Your task to perform on an android device: uninstall "DuckDuckGo Privacy Browser" Image 0: 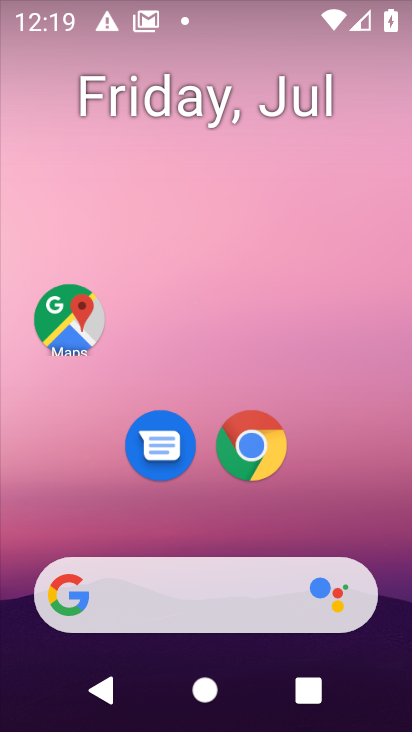
Step 0: drag from (204, 550) to (118, 18)
Your task to perform on an android device: uninstall "DuckDuckGo Privacy Browser" Image 1: 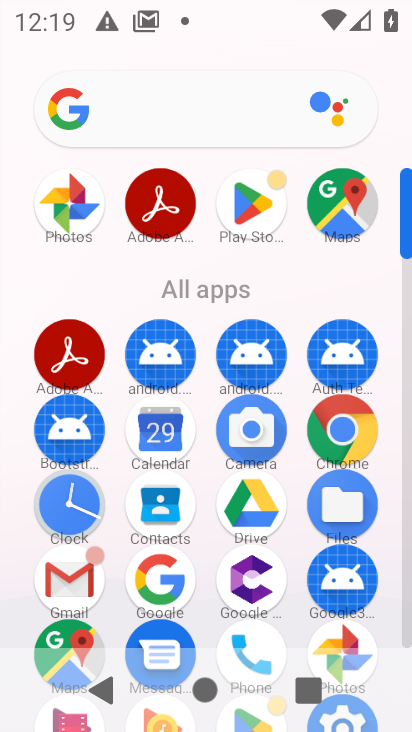
Step 1: click (267, 219)
Your task to perform on an android device: uninstall "DuckDuckGo Privacy Browser" Image 2: 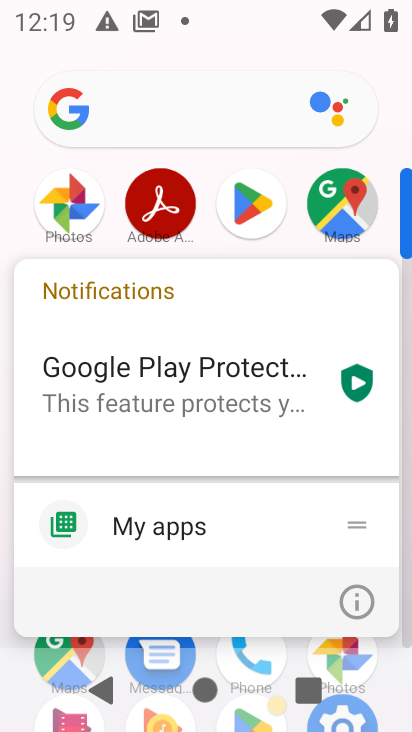
Step 2: click (240, 212)
Your task to perform on an android device: uninstall "DuckDuckGo Privacy Browser" Image 3: 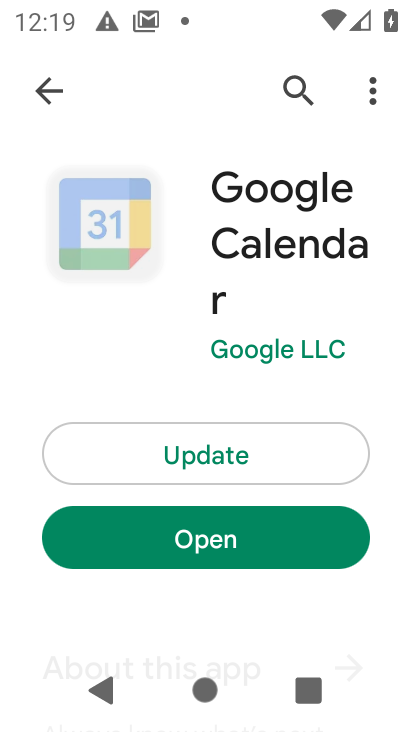
Step 3: click (249, 219)
Your task to perform on an android device: uninstall "DuckDuckGo Privacy Browser" Image 4: 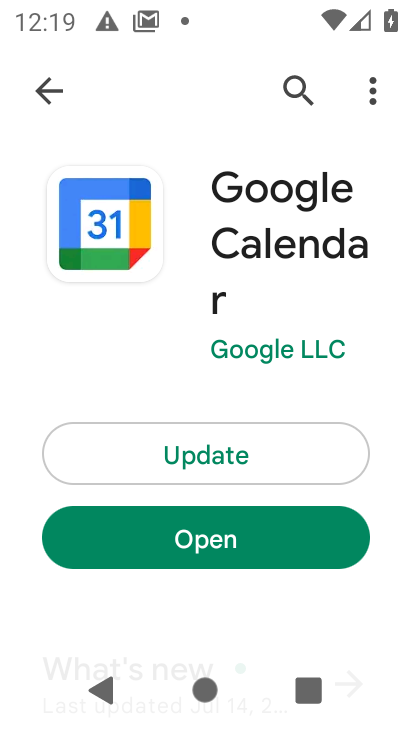
Step 4: click (253, 215)
Your task to perform on an android device: uninstall "DuckDuckGo Privacy Browser" Image 5: 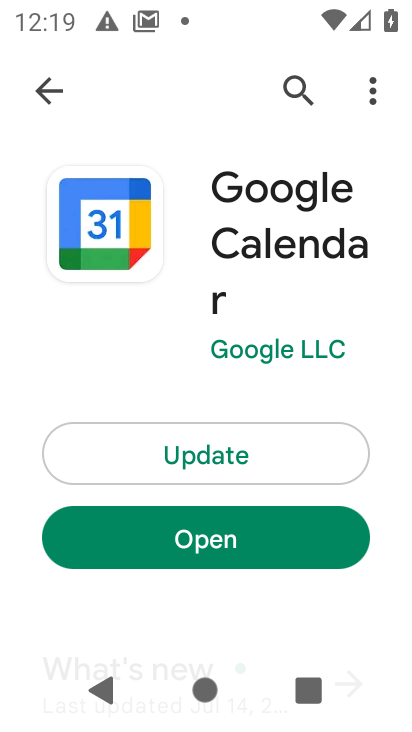
Step 5: click (44, 86)
Your task to perform on an android device: uninstall "DuckDuckGo Privacy Browser" Image 6: 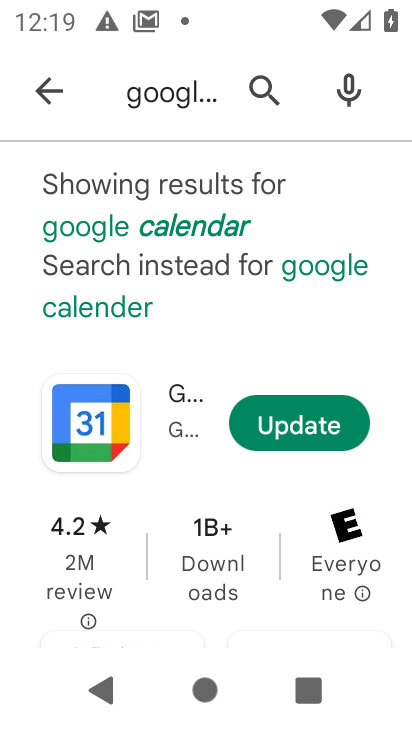
Step 6: click (162, 92)
Your task to perform on an android device: uninstall "DuckDuckGo Privacy Browser" Image 7: 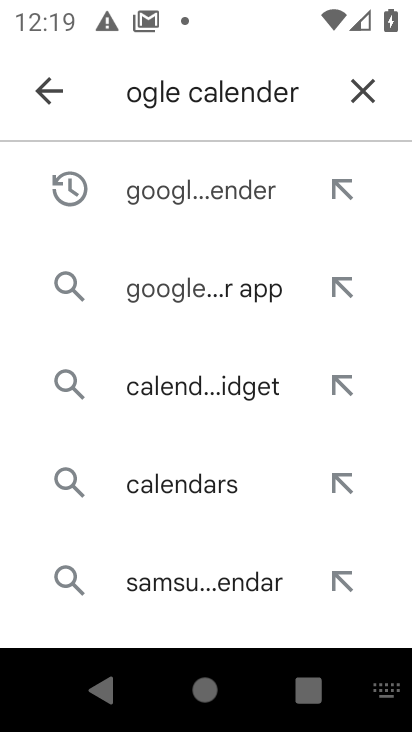
Step 7: click (364, 93)
Your task to perform on an android device: uninstall "DuckDuckGo Privacy Browser" Image 8: 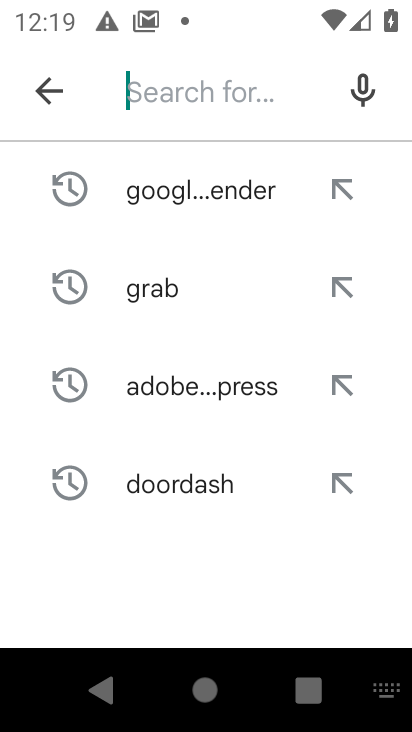
Step 8: type "duckduckgo"
Your task to perform on an android device: uninstall "DuckDuckGo Privacy Browser" Image 9: 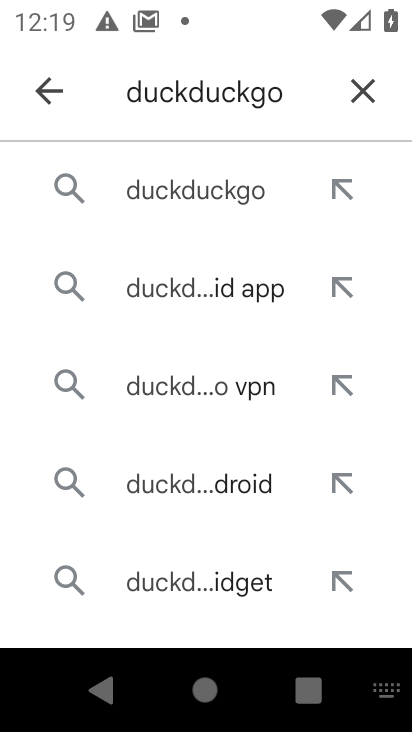
Step 9: click (192, 208)
Your task to perform on an android device: uninstall "DuckDuckGo Privacy Browser" Image 10: 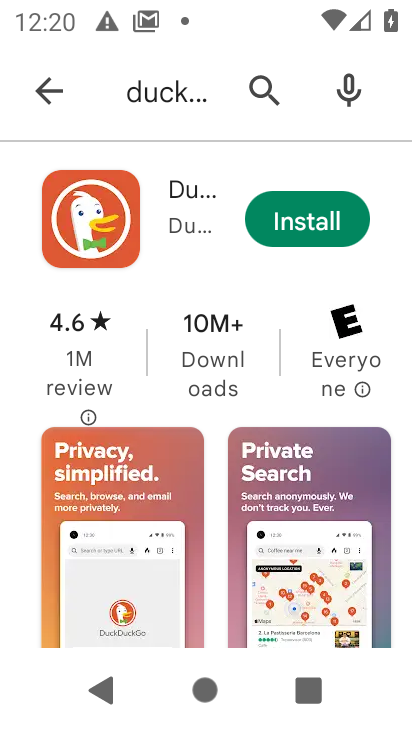
Step 10: task complete